Your task to perform on an android device: toggle sleep mode Image 0: 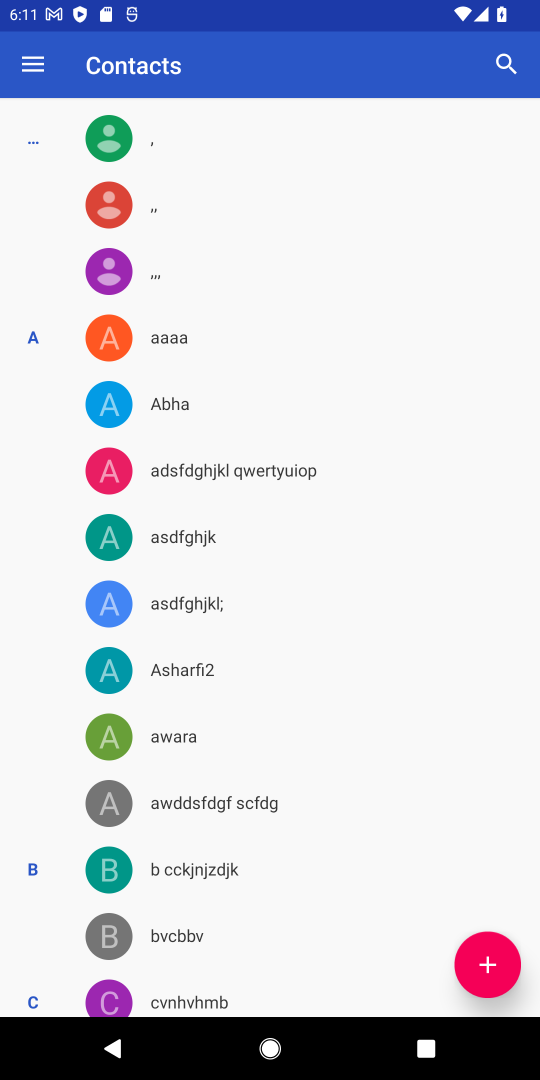
Step 0: press back button
Your task to perform on an android device: toggle sleep mode Image 1: 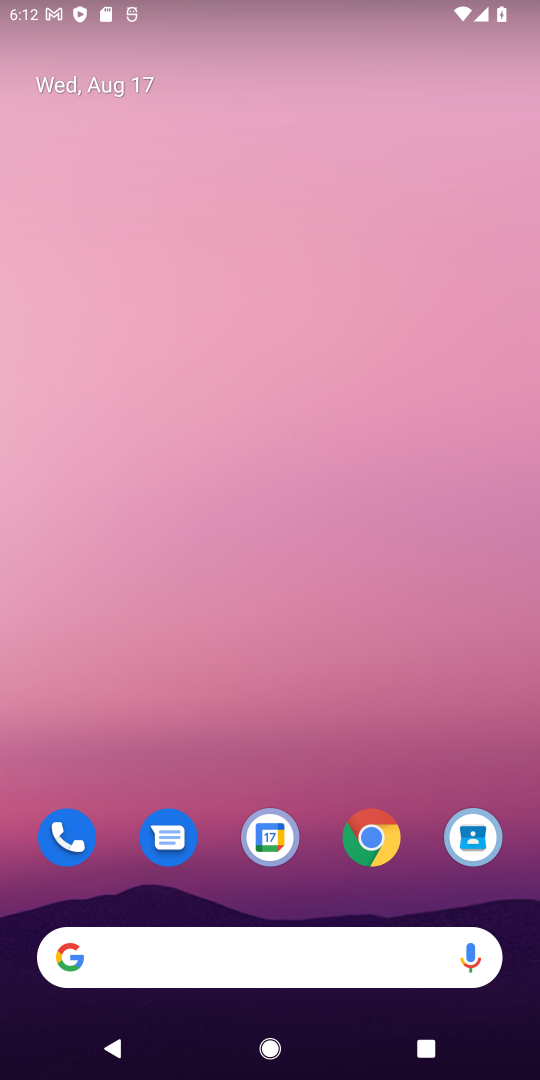
Step 1: drag from (279, 924) to (427, 31)
Your task to perform on an android device: toggle sleep mode Image 2: 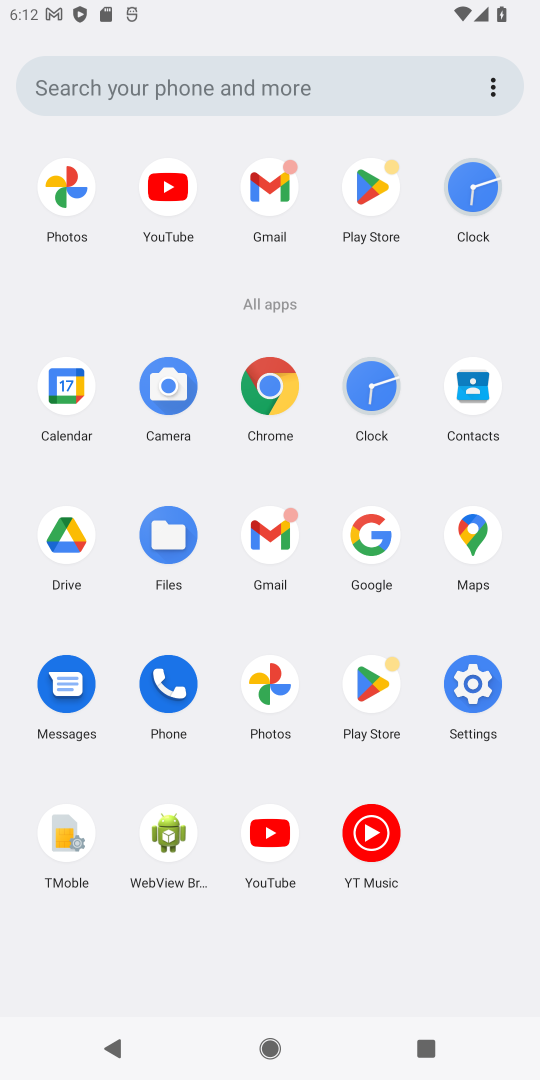
Step 2: click (468, 681)
Your task to perform on an android device: toggle sleep mode Image 3: 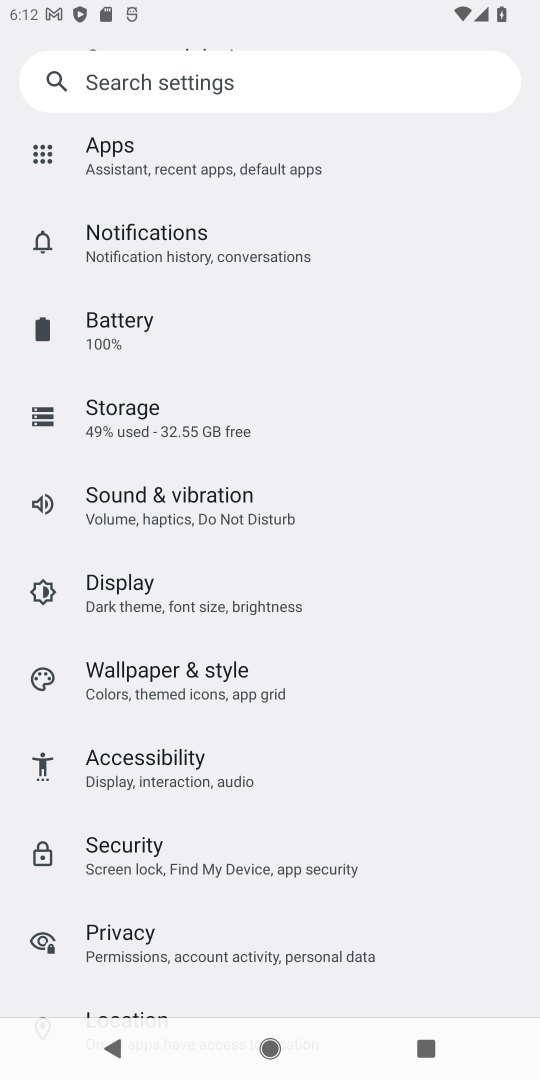
Step 3: click (185, 78)
Your task to perform on an android device: toggle sleep mode Image 4: 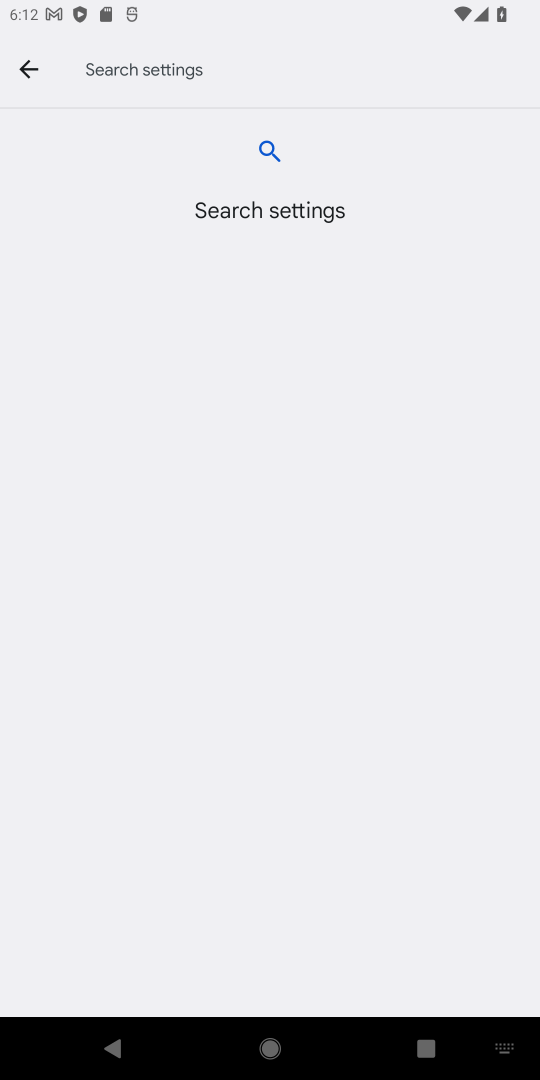
Step 4: type "sleep mode"
Your task to perform on an android device: toggle sleep mode Image 5: 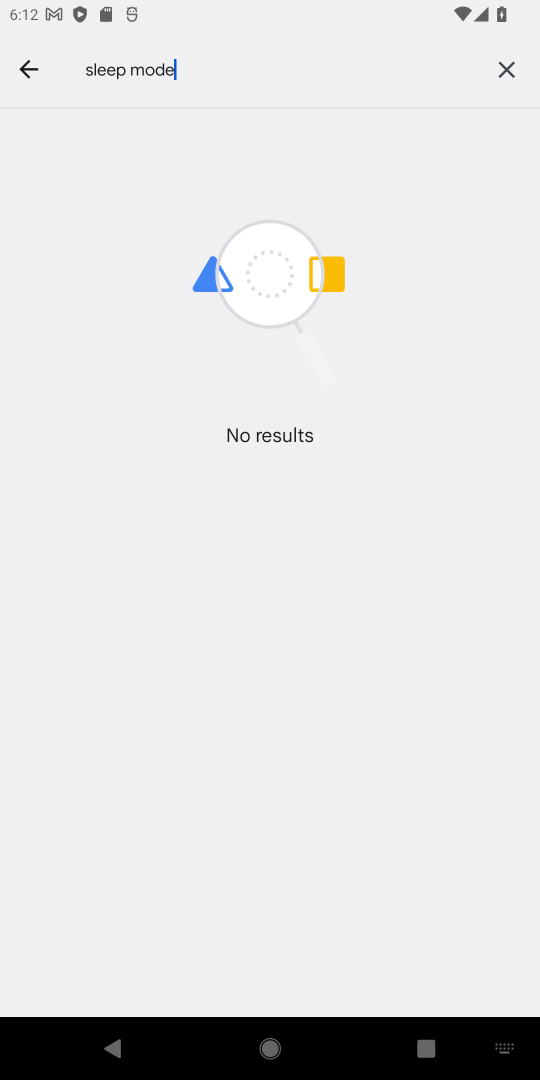
Step 5: task complete